Your task to perform on an android device: check the backup settings in the google photos Image 0: 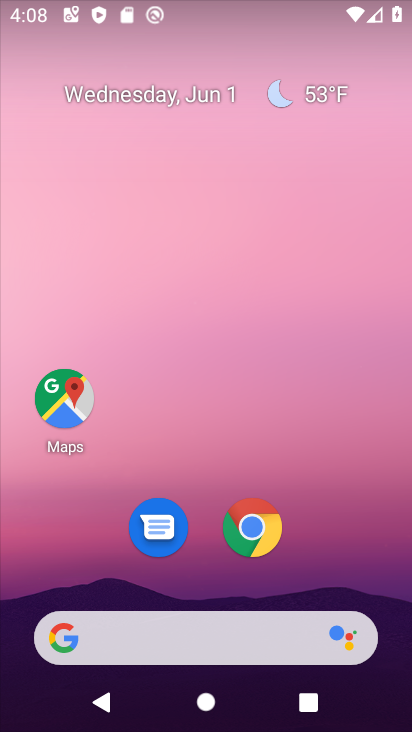
Step 0: drag from (334, 563) to (376, 63)
Your task to perform on an android device: check the backup settings in the google photos Image 1: 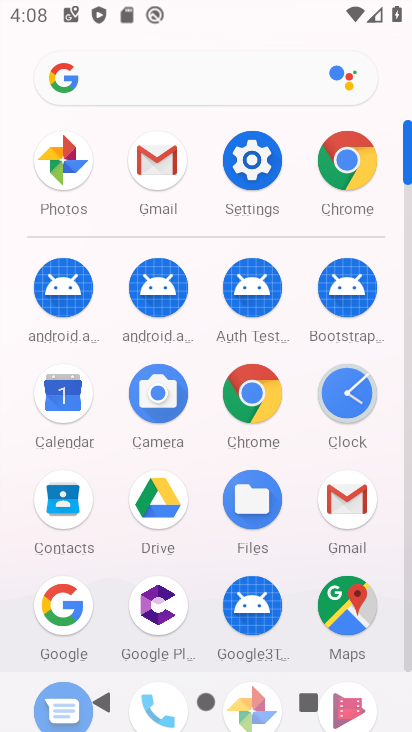
Step 1: click (262, 388)
Your task to perform on an android device: check the backup settings in the google photos Image 2: 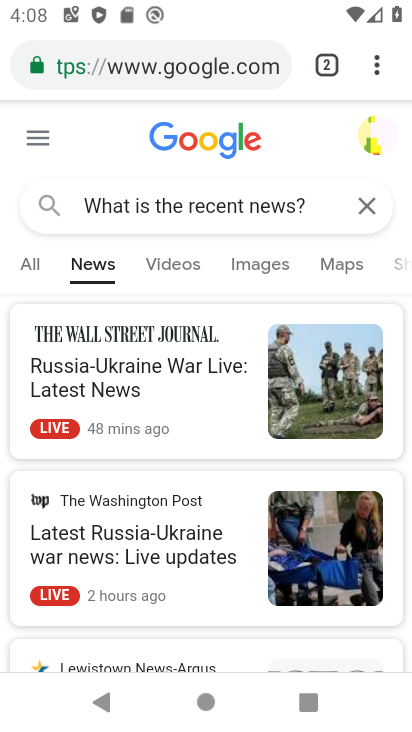
Step 2: press home button
Your task to perform on an android device: check the backup settings in the google photos Image 3: 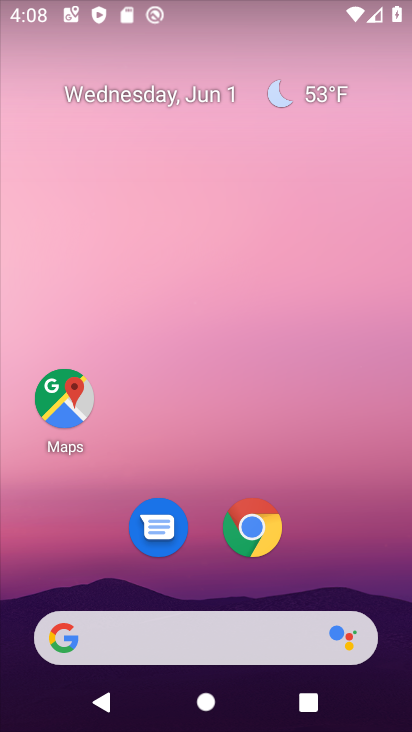
Step 3: drag from (273, 549) to (321, 63)
Your task to perform on an android device: check the backup settings in the google photos Image 4: 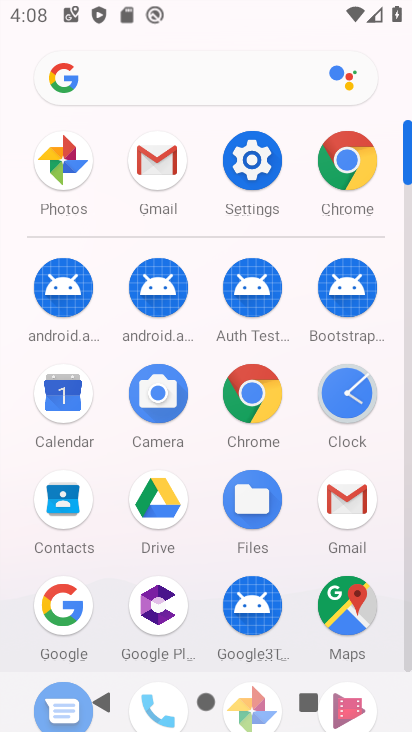
Step 4: drag from (194, 540) to (215, 145)
Your task to perform on an android device: check the backup settings in the google photos Image 5: 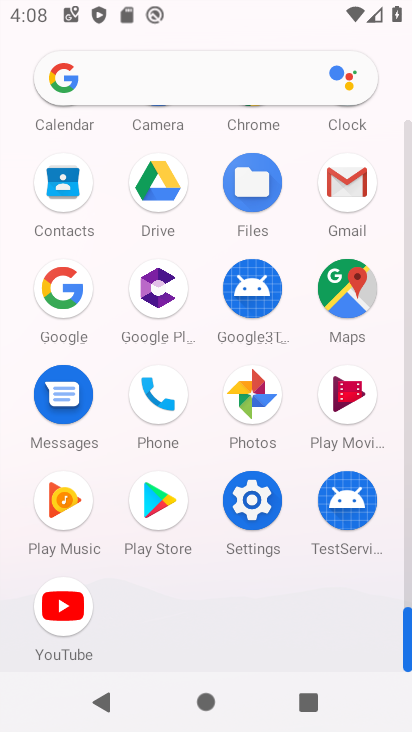
Step 5: click (252, 395)
Your task to perform on an android device: check the backup settings in the google photos Image 6: 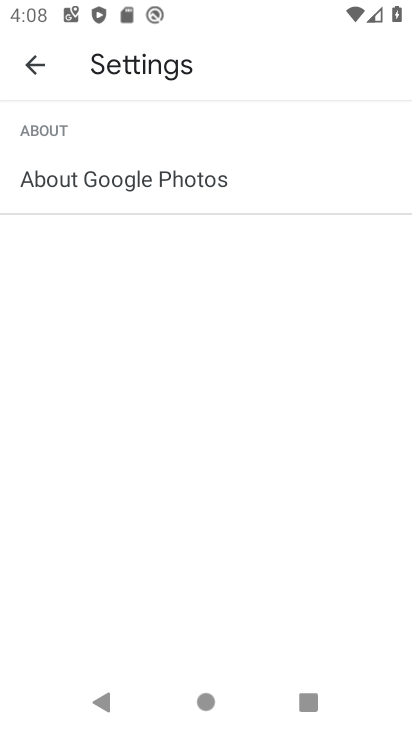
Step 6: click (37, 57)
Your task to perform on an android device: check the backup settings in the google photos Image 7: 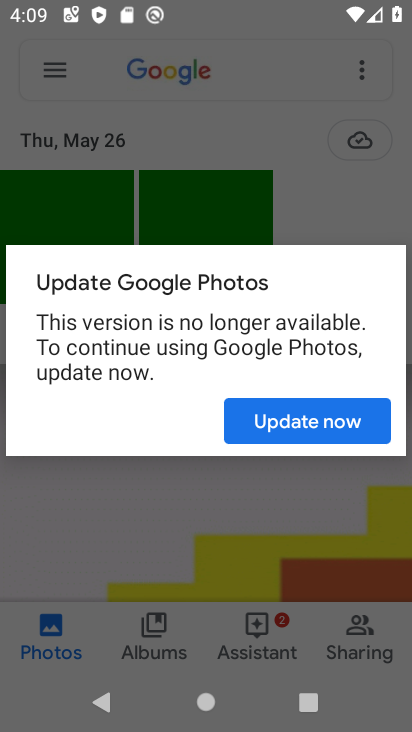
Step 7: click (291, 408)
Your task to perform on an android device: check the backup settings in the google photos Image 8: 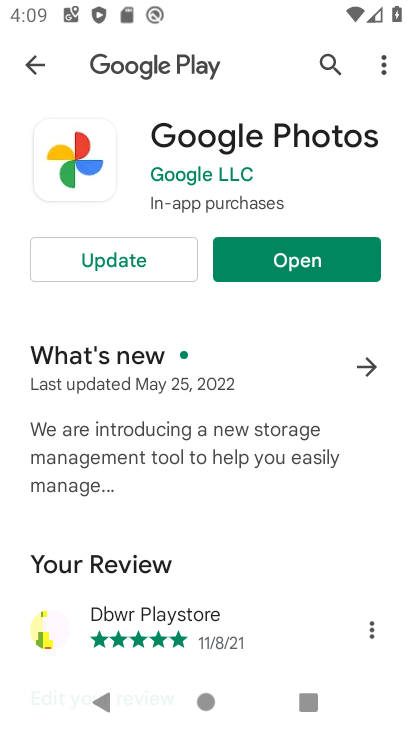
Step 8: click (144, 262)
Your task to perform on an android device: check the backup settings in the google photos Image 9: 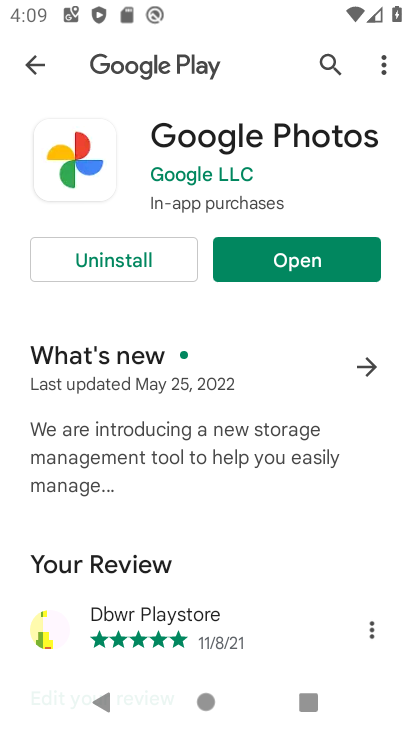
Step 9: click (277, 246)
Your task to perform on an android device: check the backup settings in the google photos Image 10: 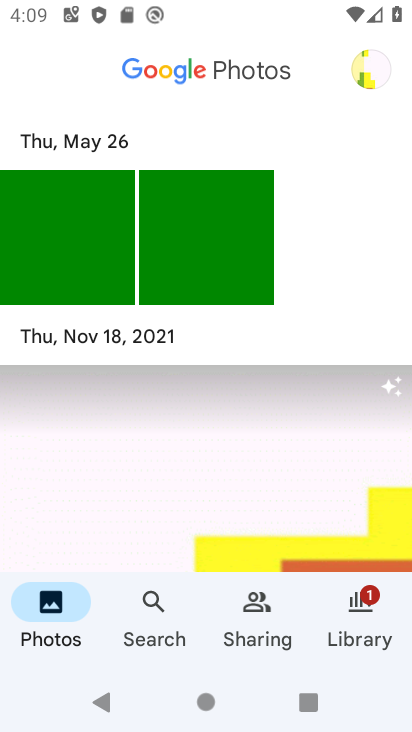
Step 10: drag from (219, 456) to (201, 258)
Your task to perform on an android device: check the backup settings in the google photos Image 11: 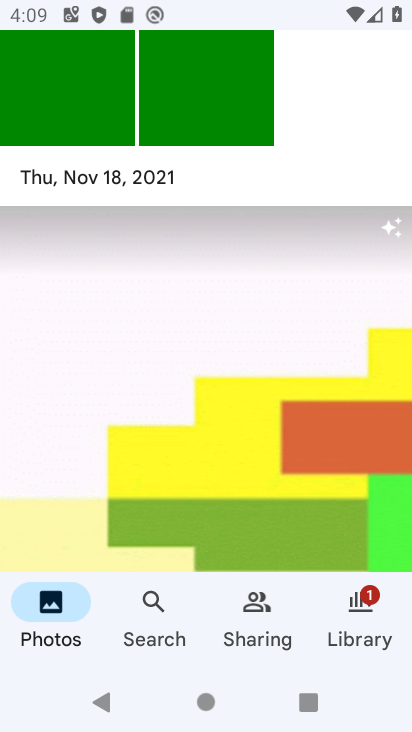
Step 11: click (353, 602)
Your task to perform on an android device: check the backup settings in the google photos Image 12: 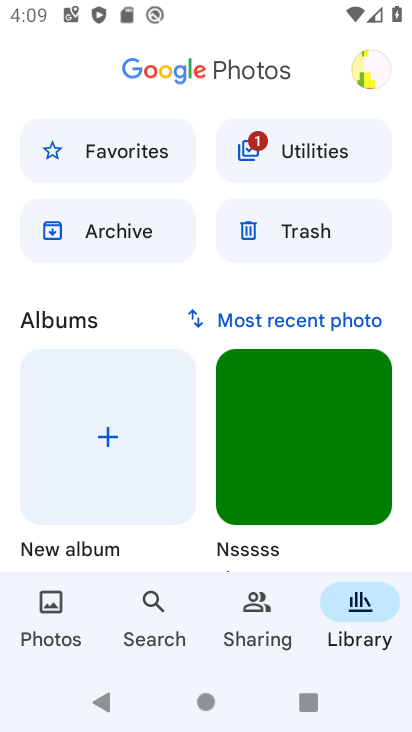
Step 12: drag from (267, 368) to (282, 194)
Your task to perform on an android device: check the backup settings in the google photos Image 13: 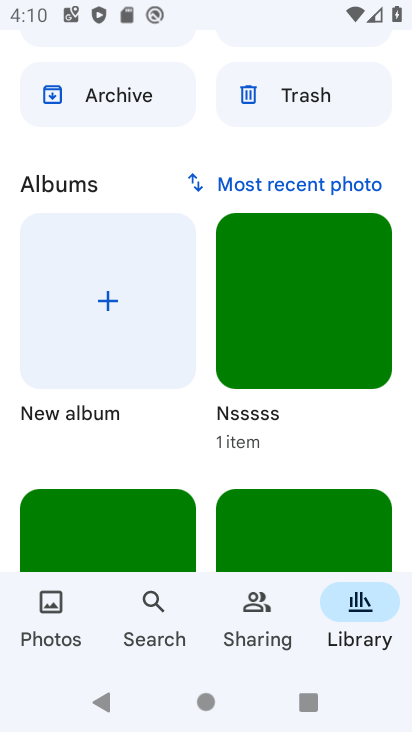
Step 13: drag from (215, 74) to (147, 465)
Your task to perform on an android device: check the backup settings in the google photos Image 14: 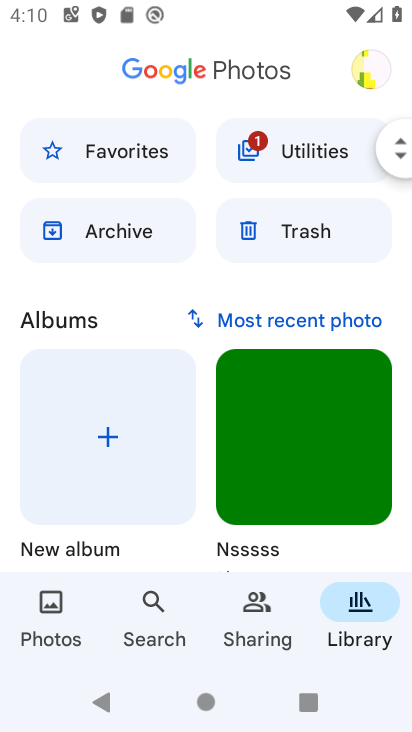
Step 14: click (373, 51)
Your task to perform on an android device: check the backup settings in the google photos Image 15: 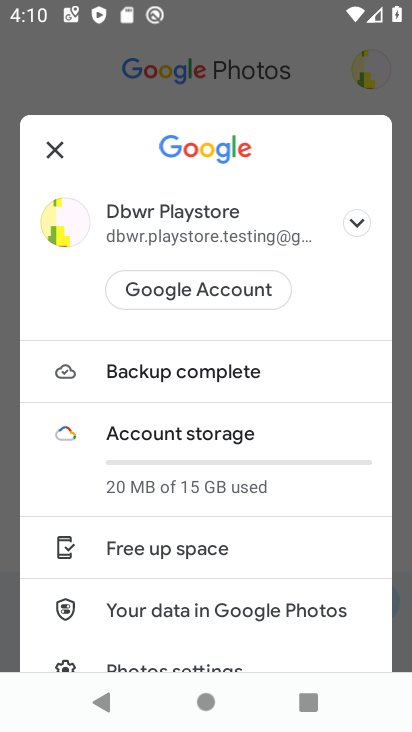
Step 15: drag from (237, 532) to (267, 243)
Your task to perform on an android device: check the backup settings in the google photos Image 16: 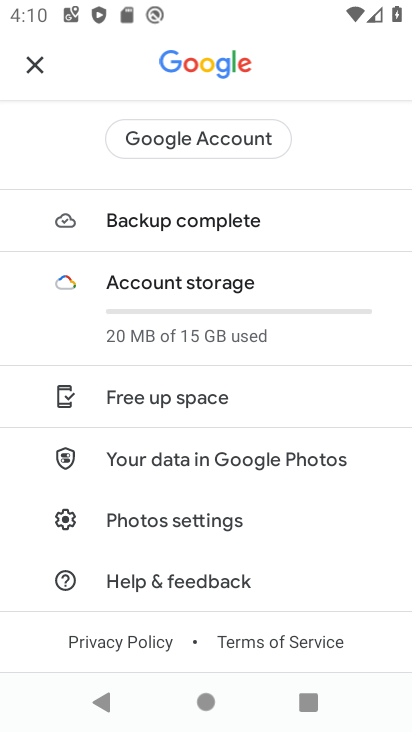
Step 16: click (175, 522)
Your task to perform on an android device: check the backup settings in the google photos Image 17: 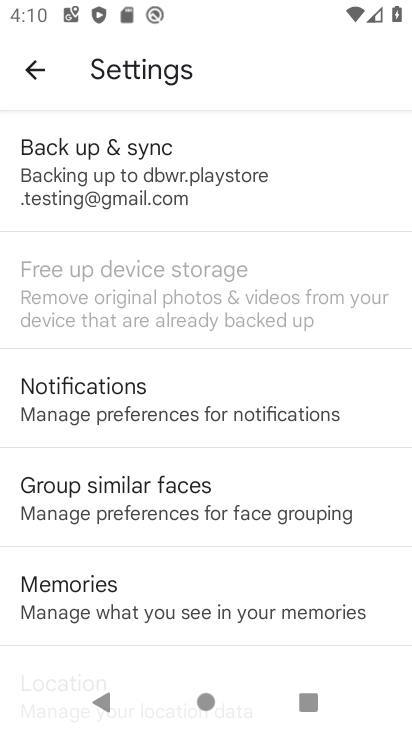
Step 17: click (79, 157)
Your task to perform on an android device: check the backup settings in the google photos Image 18: 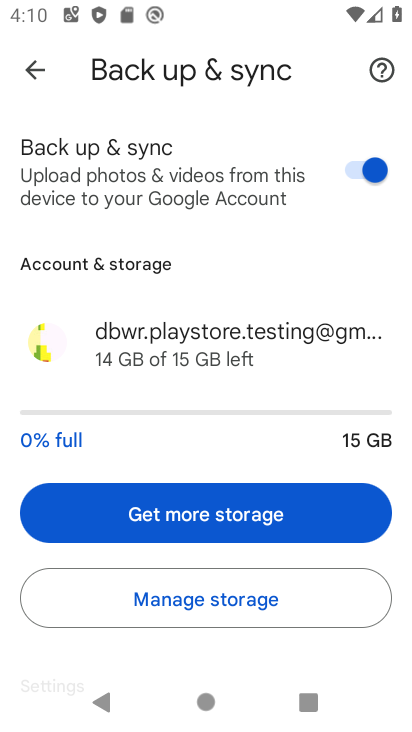
Step 18: task complete